Your task to perform on an android device: change keyboard looks Image 0: 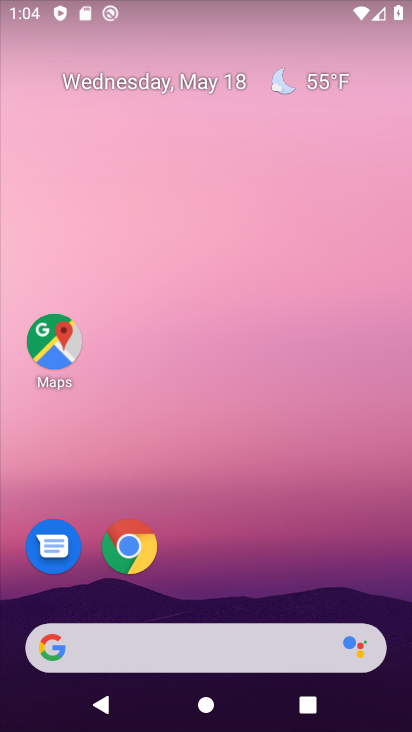
Step 0: drag from (268, 520) to (285, 68)
Your task to perform on an android device: change keyboard looks Image 1: 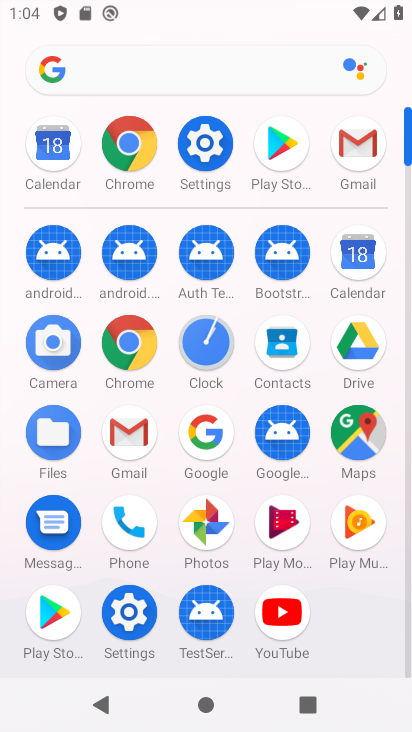
Step 1: click (133, 599)
Your task to perform on an android device: change keyboard looks Image 2: 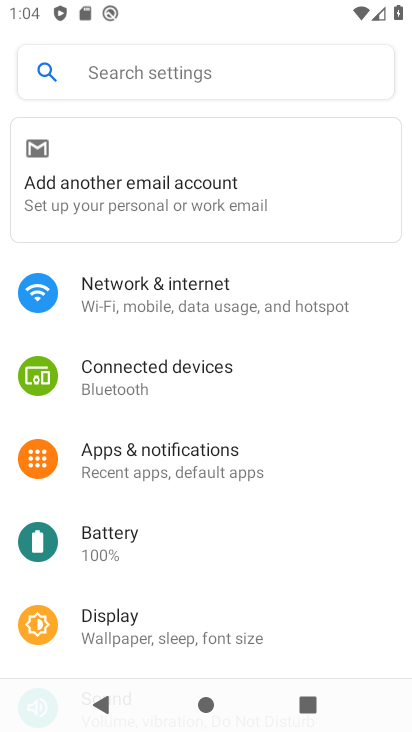
Step 2: drag from (221, 607) to (310, 157)
Your task to perform on an android device: change keyboard looks Image 3: 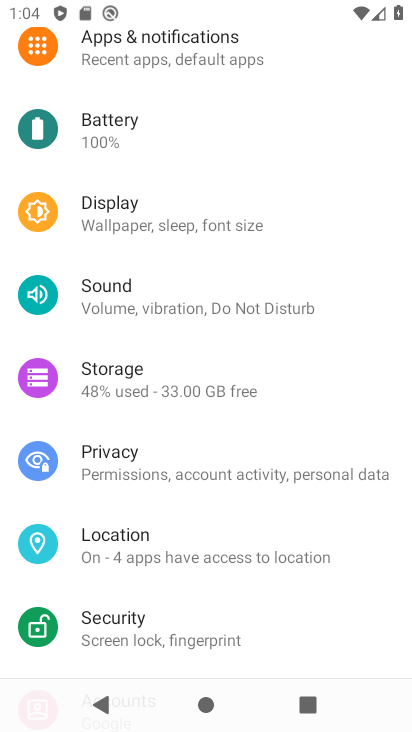
Step 3: drag from (242, 646) to (293, 157)
Your task to perform on an android device: change keyboard looks Image 4: 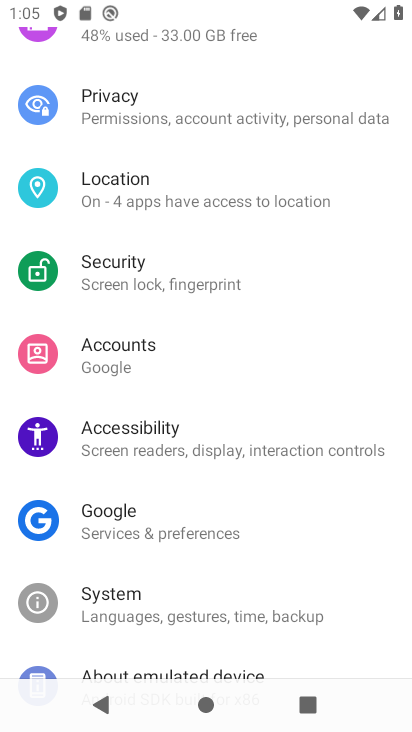
Step 4: drag from (207, 647) to (281, 346)
Your task to perform on an android device: change keyboard looks Image 5: 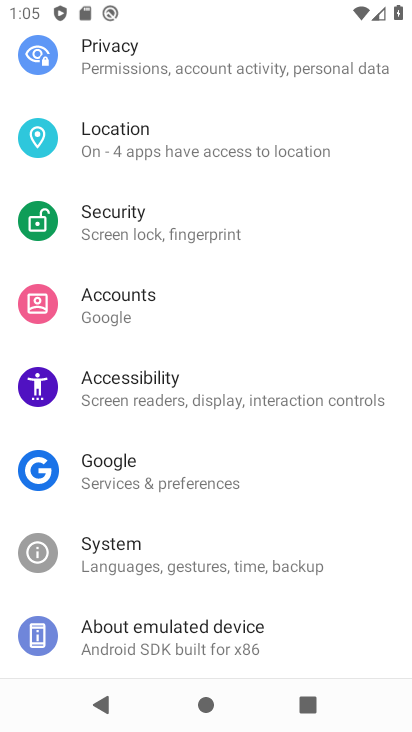
Step 5: click (164, 571)
Your task to perform on an android device: change keyboard looks Image 6: 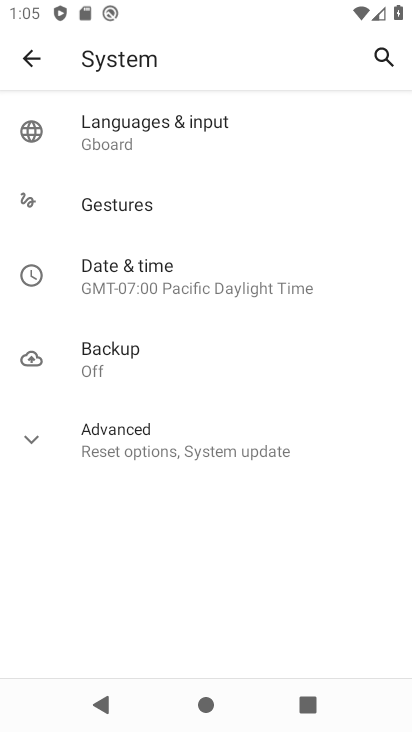
Step 6: click (204, 120)
Your task to perform on an android device: change keyboard looks Image 7: 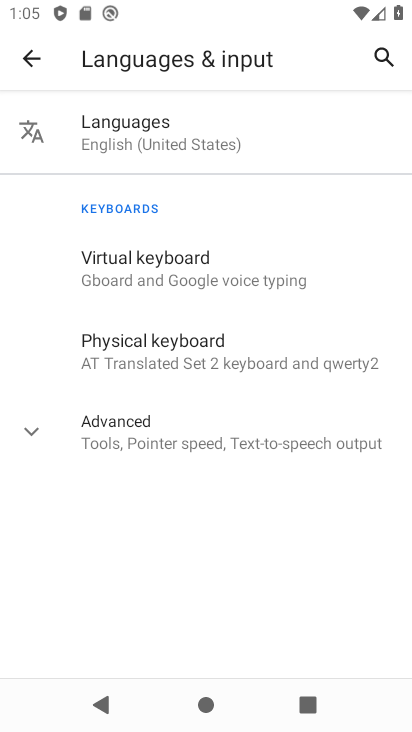
Step 7: click (182, 249)
Your task to perform on an android device: change keyboard looks Image 8: 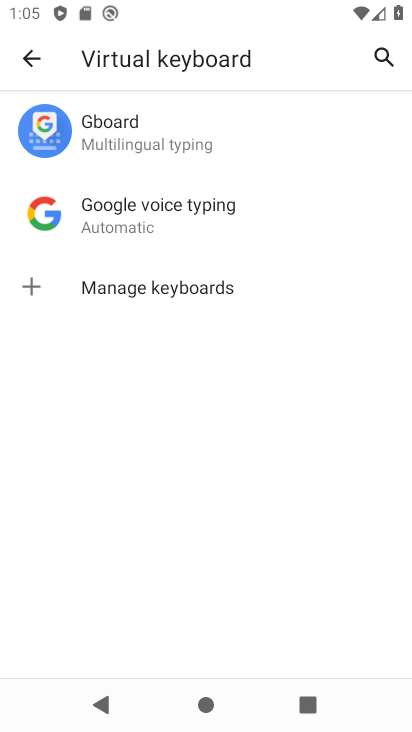
Step 8: click (196, 144)
Your task to perform on an android device: change keyboard looks Image 9: 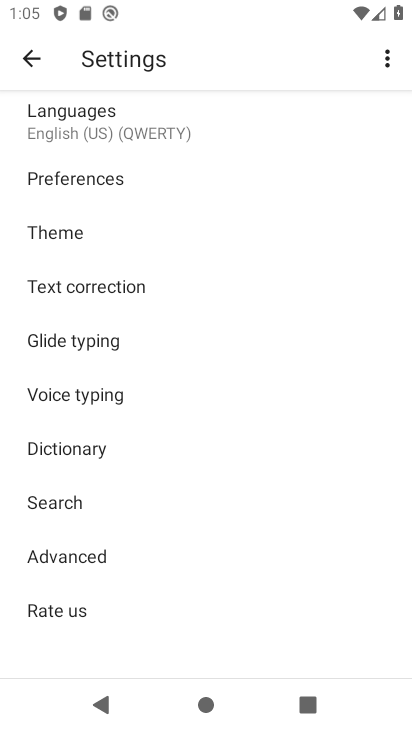
Step 9: click (56, 238)
Your task to perform on an android device: change keyboard looks Image 10: 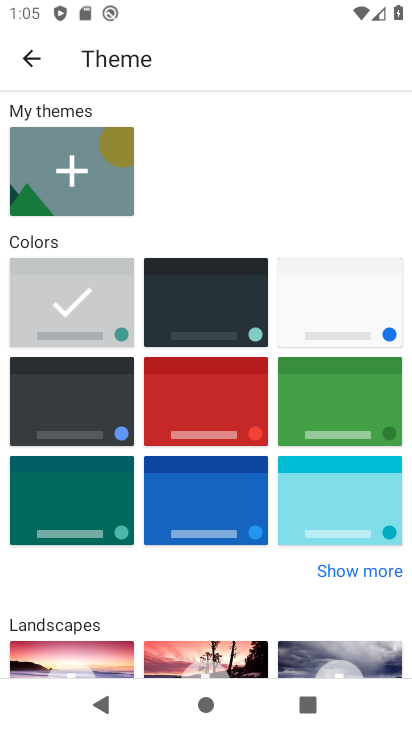
Step 10: click (59, 492)
Your task to perform on an android device: change keyboard looks Image 11: 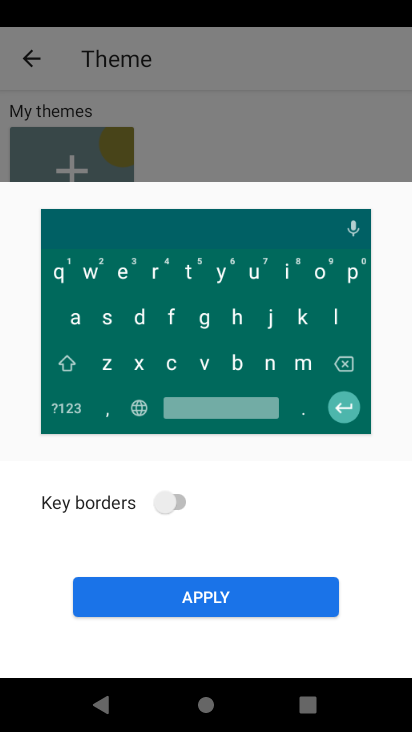
Step 11: click (240, 585)
Your task to perform on an android device: change keyboard looks Image 12: 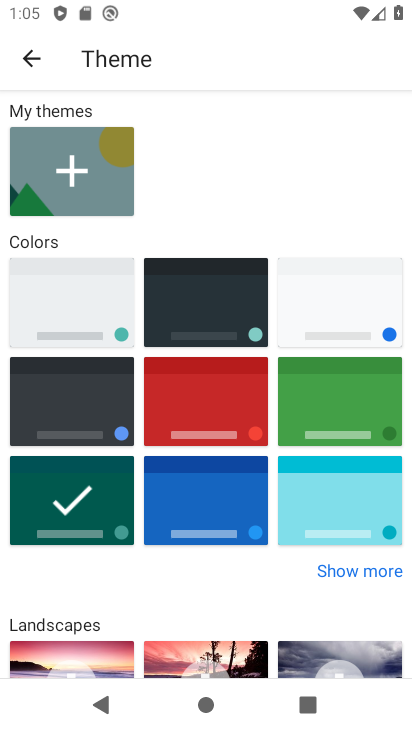
Step 12: task complete